Your task to perform on an android device: Open calendar and show me the second week of next month Image 0: 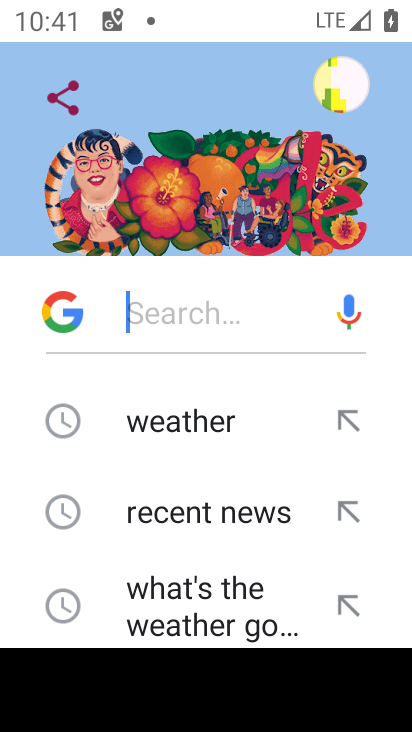
Step 0: press home button
Your task to perform on an android device: Open calendar and show me the second week of next month Image 1: 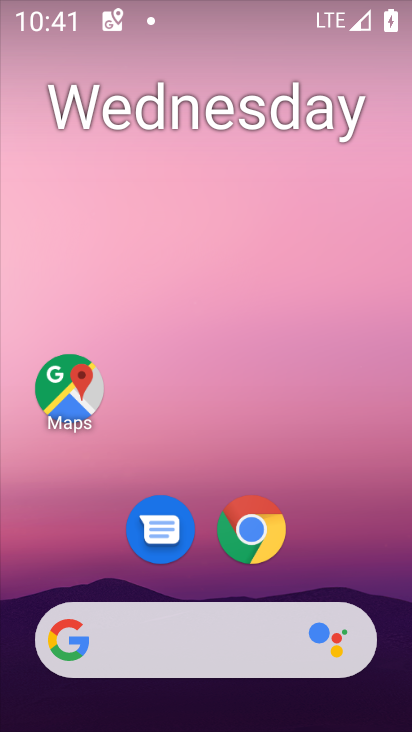
Step 1: drag from (395, 623) to (315, 160)
Your task to perform on an android device: Open calendar and show me the second week of next month Image 2: 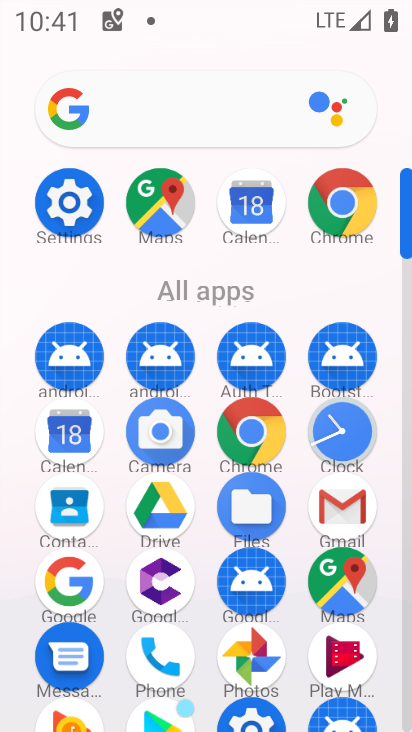
Step 2: click (406, 697)
Your task to perform on an android device: Open calendar and show me the second week of next month Image 3: 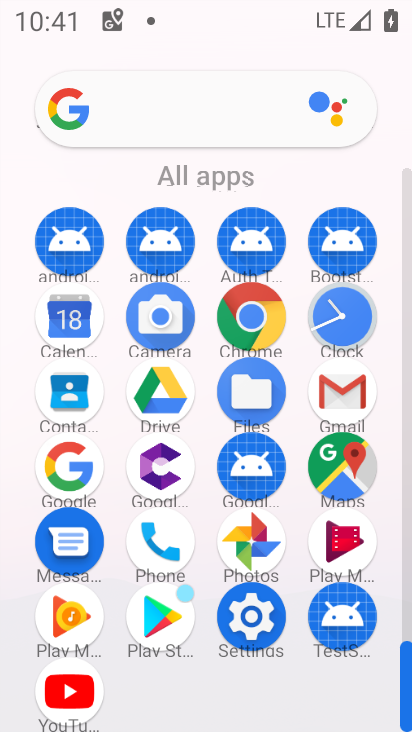
Step 3: click (72, 322)
Your task to perform on an android device: Open calendar and show me the second week of next month Image 4: 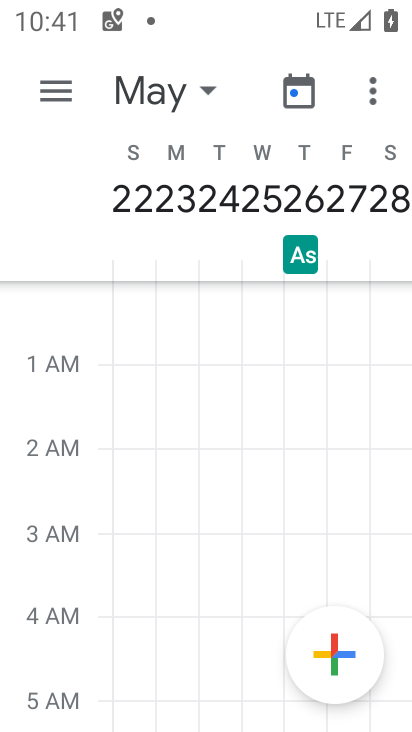
Step 4: click (195, 91)
Your task to perform on an android device: Open calendar and show me the second week of next month Image 5: 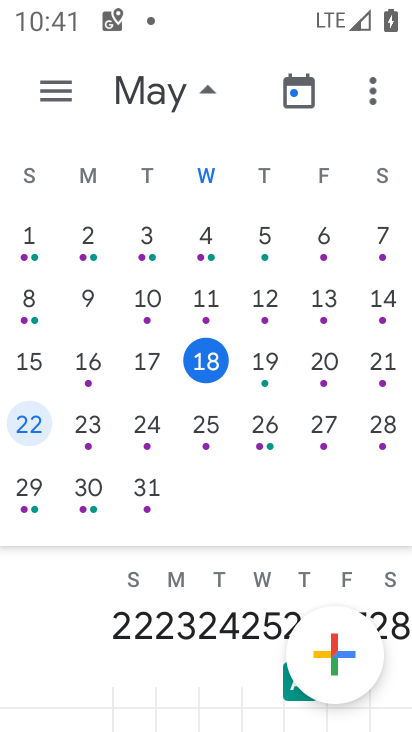
Step 5: drag from (387, 348) to (0, 328)
Your task to perform on an android device: Open calendar and show me the second week of next month Image 6: 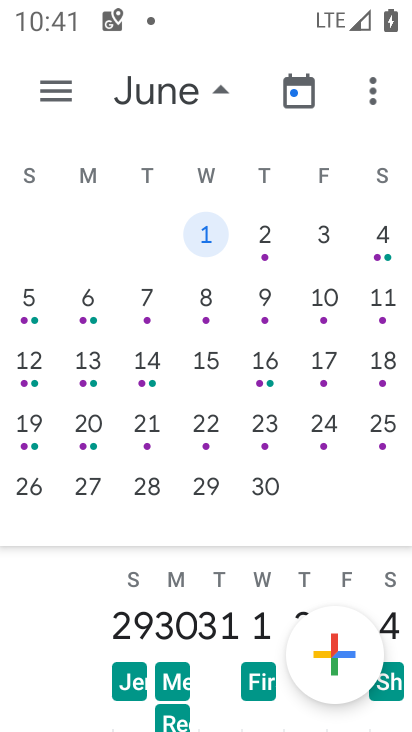
Step 6: click (25, 297)
Your task to perform on an android device: Open calendar and show me the second week of next month Image 7: 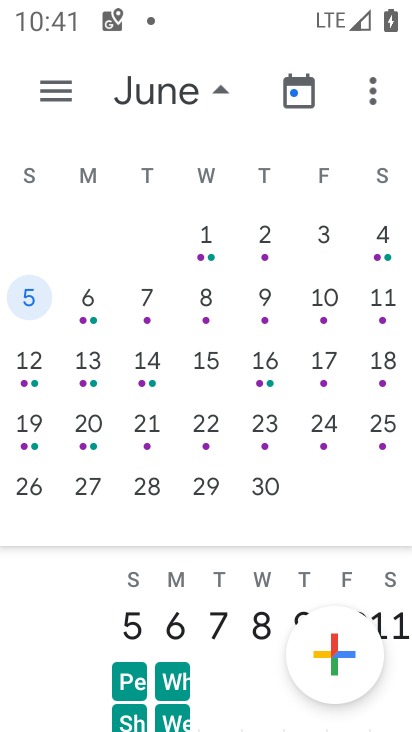
Step 7: task complete